Your task to perform on an android device: make emails show in primary in the gmail app Image 0: 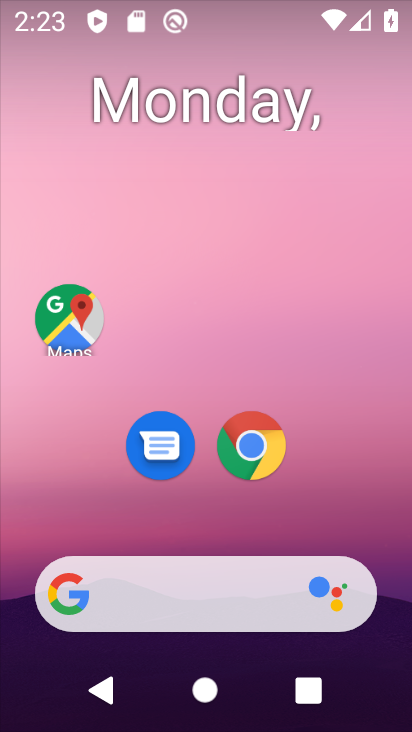
Step 0: drag from (203, 527) to (231, 101)
Your task to perform on an android device: make emails show in primary in the gmail app Image 1: 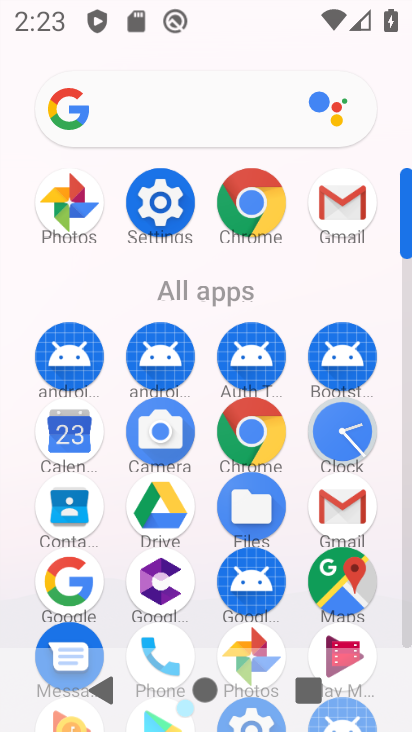
Step 1: click (353, 185)
Your task to perform on an android device: make emails show in primary in the gmail app Image 2: 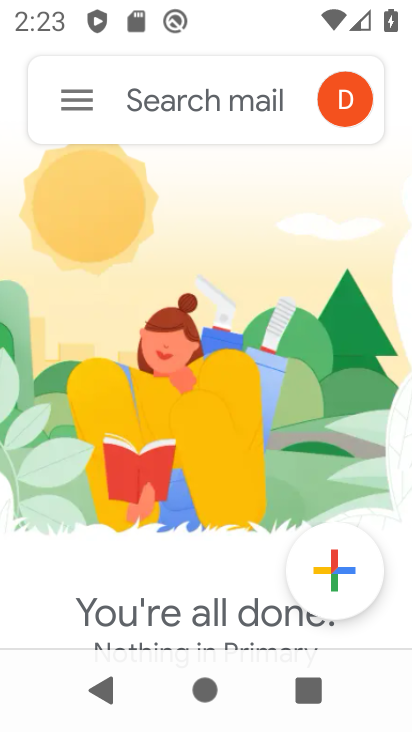
Step 2: click (84, 104)
Your task to perform on an android device: make emails show in primary in the gmail app Image 3: 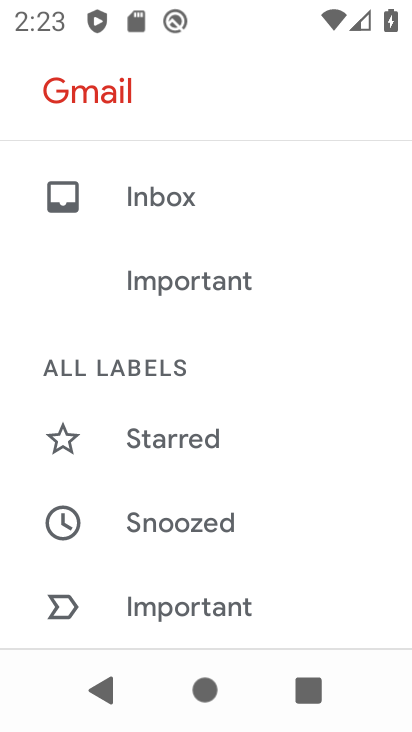
Step 3: task complete